Your task to perform on an android device: turn notification dots on Image 0: 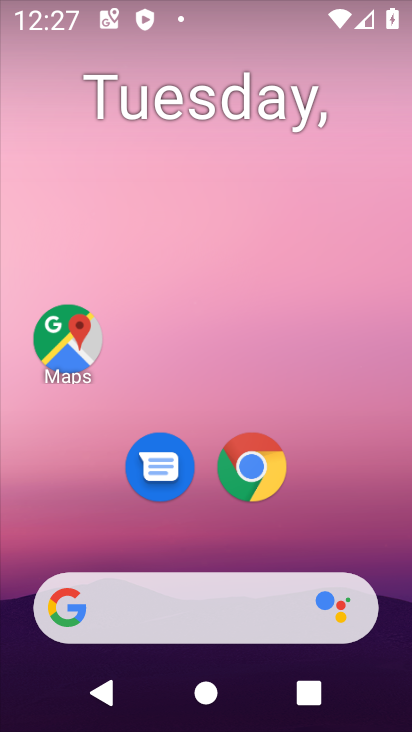
Step 0: drag from (396, 508) to (273, 7)
Your task to perform on an android device: turn notification dots on Image 1: 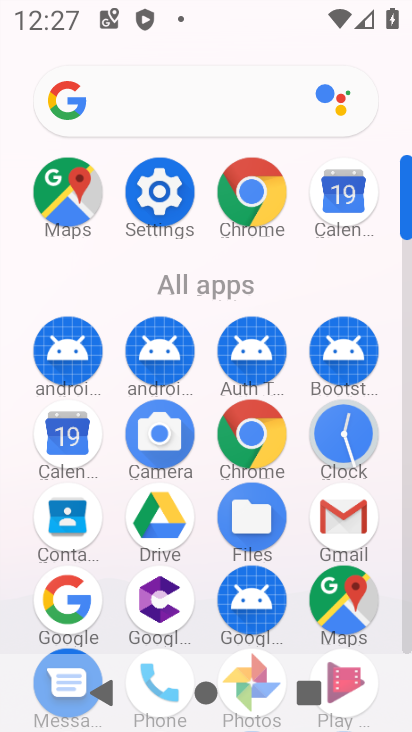
Step 1: drag from (15, 488) to (34, 197)
Your task to perform on an android device: turn notification dots on Image 2: 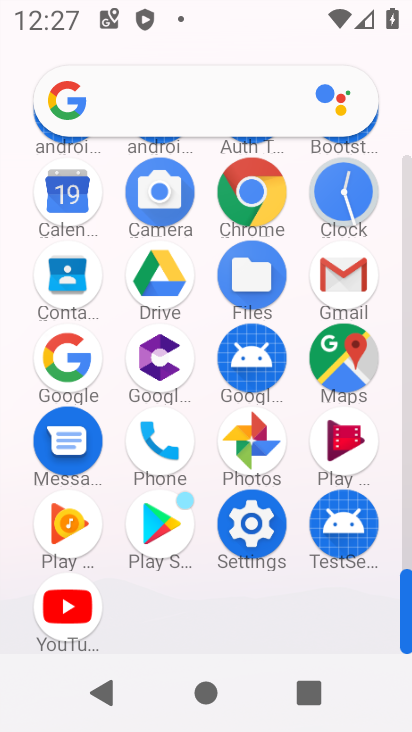
Step 2: click (246, 522)
Your task to perform on an android device: turn notification dots on Image 3: 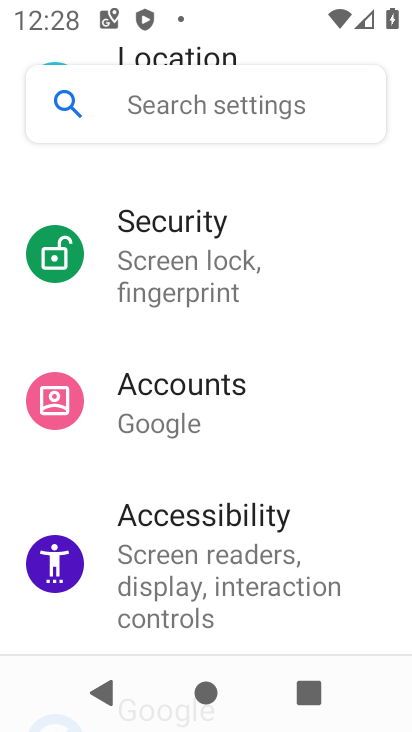
Step 3: drag from (303, 536) to (301, 117)
Your task to perform on an android device: turn notification dots on Image 4: 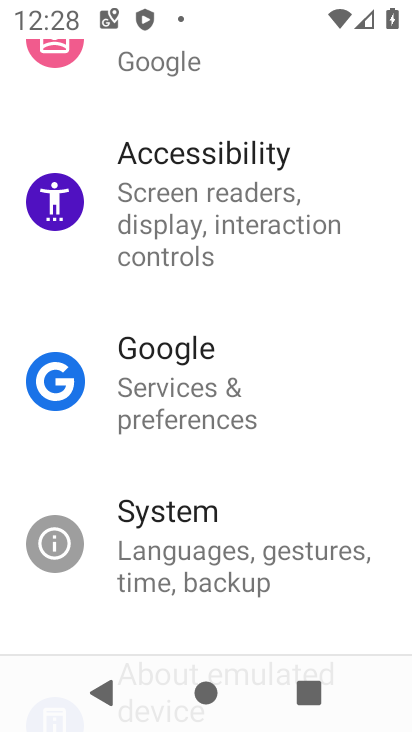
Step 4: drag from (223, 469) to (272, 144)
Your task to perform on an android device: turn notification dots on Image 5: 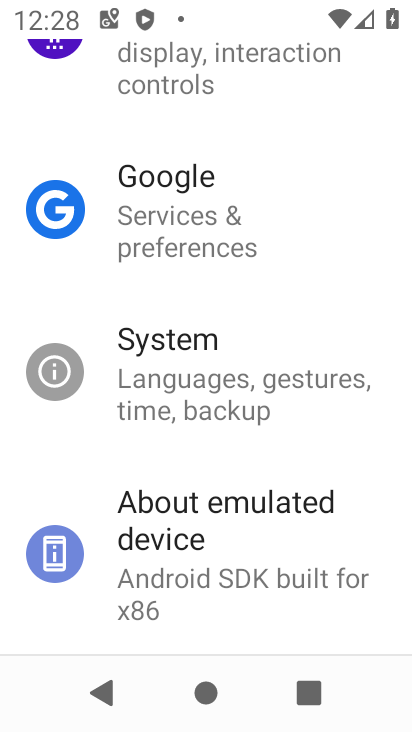
Step 5: drag from (274, 298) to (262, 68)
Your task to perform on an android device: turn notification dots on Image 6: 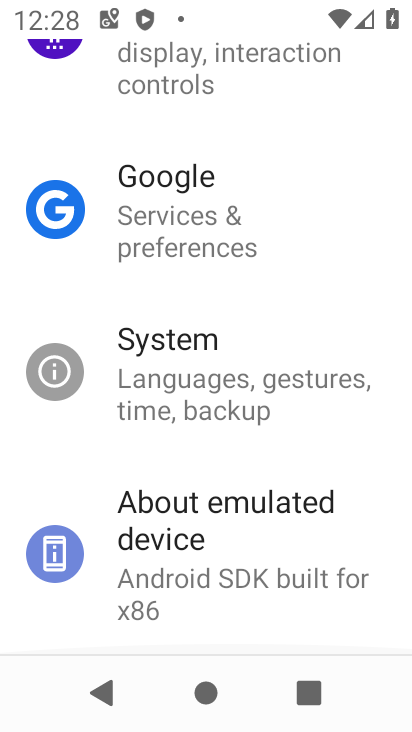
Step 6: drag from (302, 125) to (272, 501)
Your task to perform on an android device: turn notification dots on Image 7: 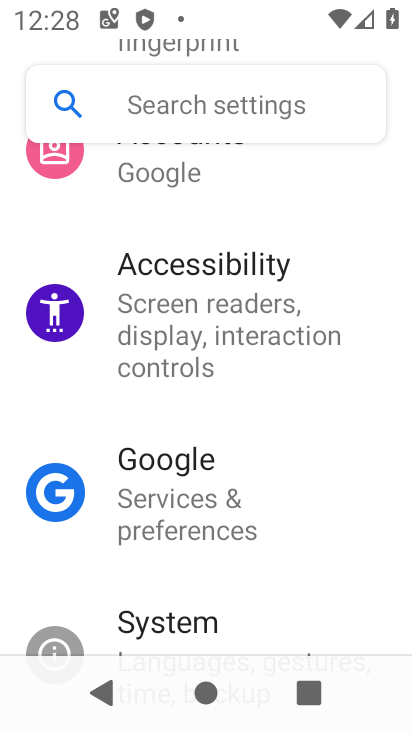
Step 7: drag from (311, 247) to (262, 554)
Your task to perform on an android device: turn notification dots on Image 8: 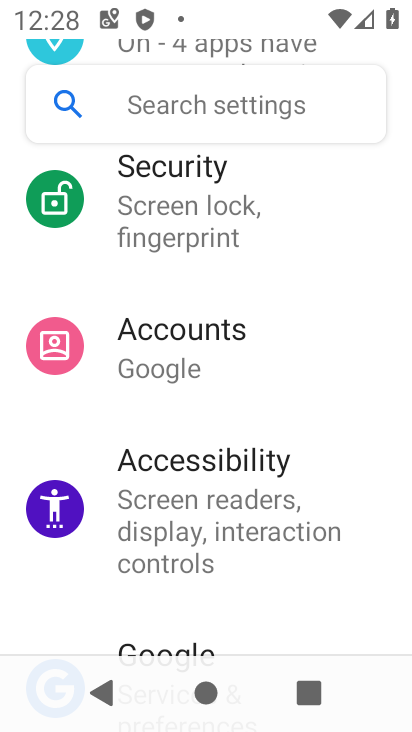
Step 8: drag from (312, 208) to (281, 505)
Your task to perform on an android device: turn notification dots on Image 9: 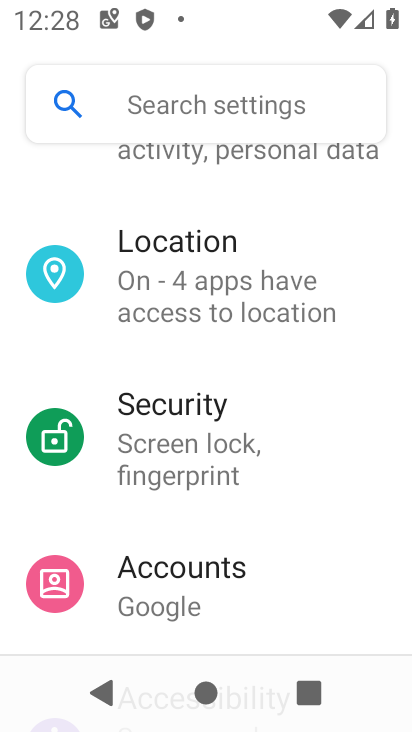
Step 9: drag from (251, 232) to (263, 594)
Your task to perform on an android device: turn notification dots on Image 10: 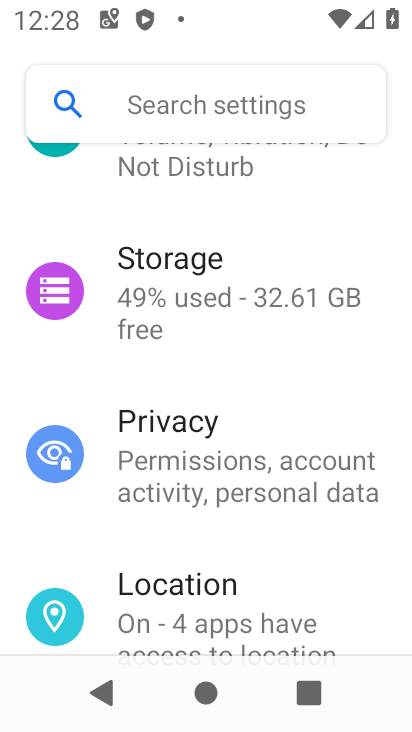
Step 10: drag from (275, 251) to (266, 536)
Your task to perform on an android device: turn notification dots on Image 11: 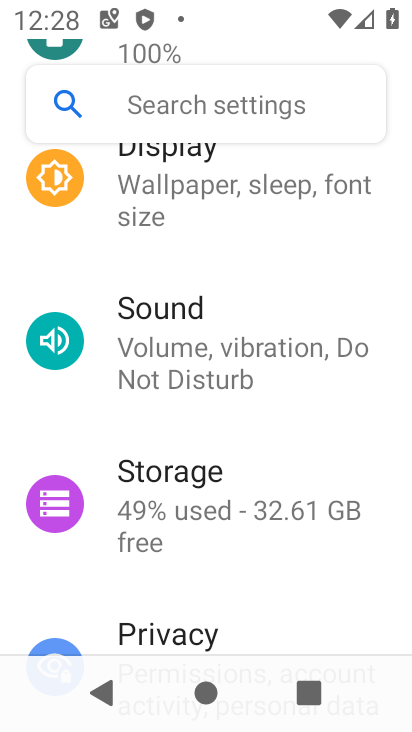
Step 11: drag from (286, 199) to (276, 533)
Your task to perform on an android device: turn notification dots on Image 12: 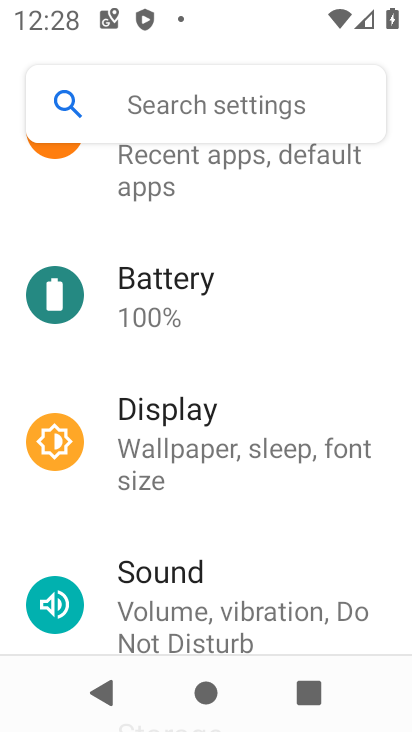
Step 12: drag from (263, 241) to (263, 471)
Your task to perform on an android device: turn notification dots on Image 13: 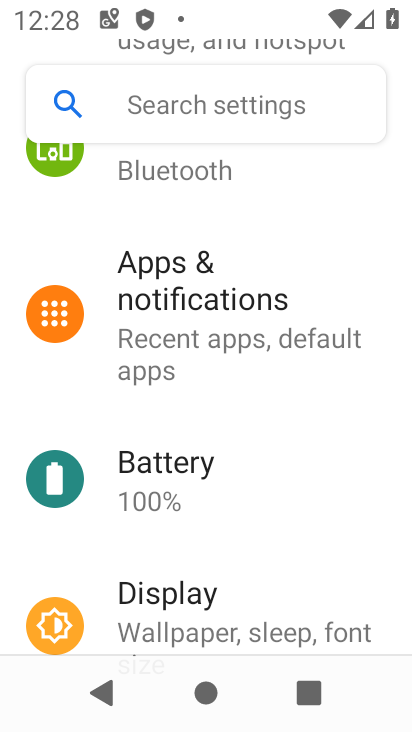
Step 13: click (261, 305)
Your task to perform on an android device: turn notification dots on Image 14: 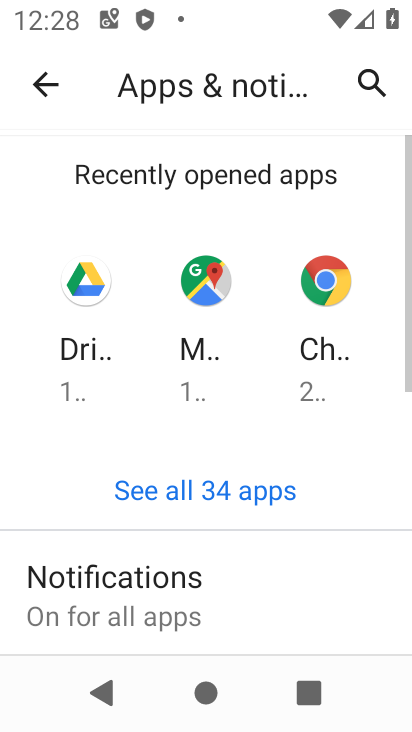
Step 14: click (183, 577)
Your task to perform on an android device: turn notification dots on Image 15: 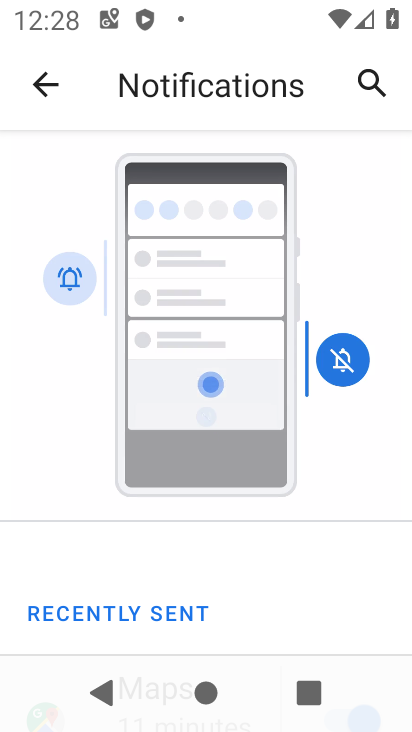
Step 15: drag from (216, 520) to (221, 150)
Your task to perform on an android device: turn notification dots on Image 16: 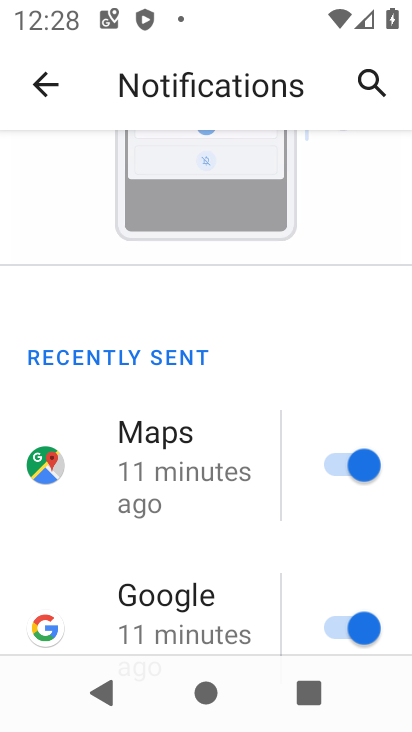
Step 16: drag from (208, 516) to (217, 168)
Your task to perform on an android device: turn notification dots on Image 17: 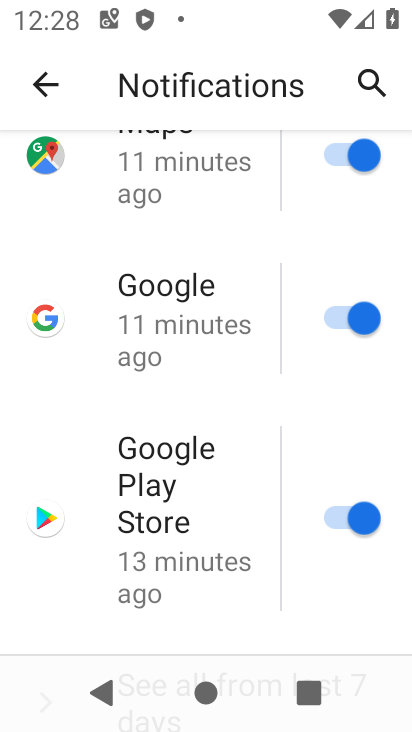
Step 17: drag from (192, 588) to (192, 197)
Your task to perform on an android device: turn notification dots on Image 18: 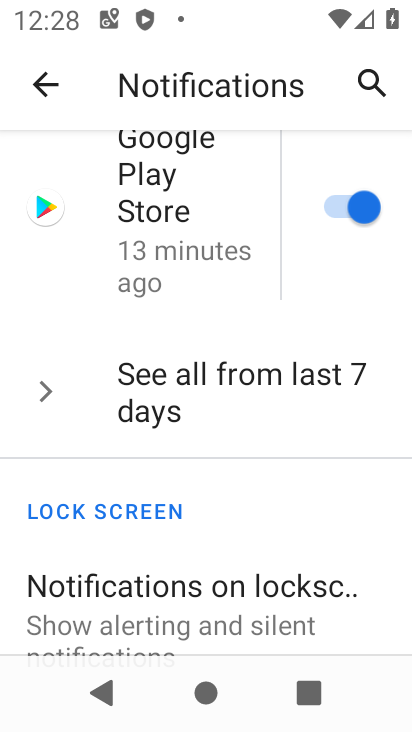
Step 18: drag from (190, 548) to (210, 200)
Your task to perform on an android device: turn notification dots on Image 19: 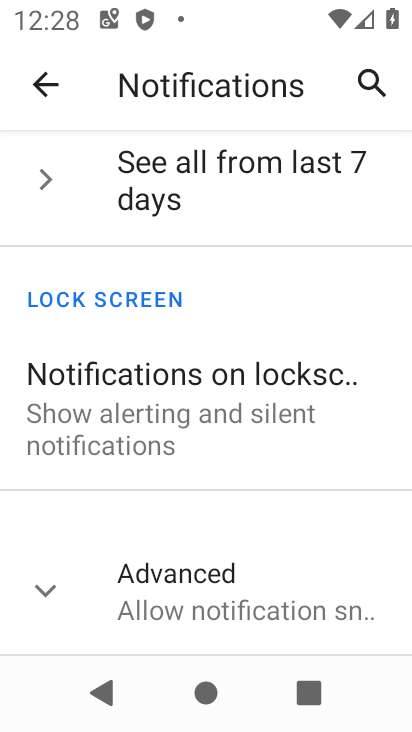
Step 19: click (186, 613)
Your task to perform on an android device: turn notification dots on Image 20: 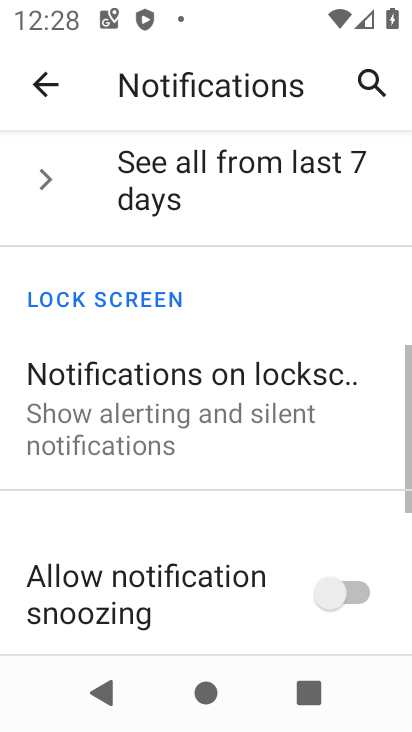
Step 20: task complete